Your task to perform on an android device: turn off location Image 0: 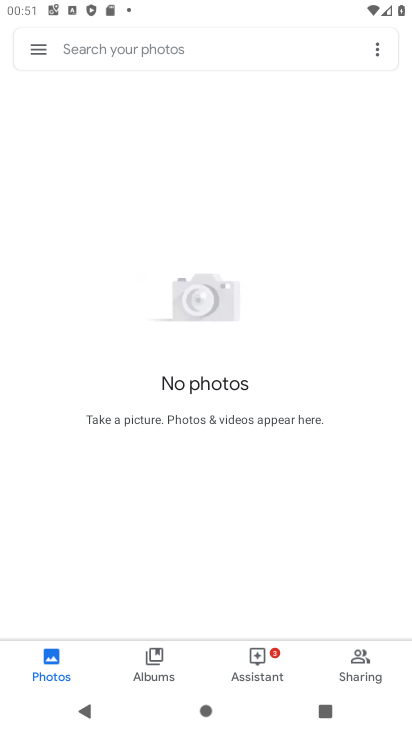
Step 0: press home button
Your task to perform on an android device: turn off location Image 1: 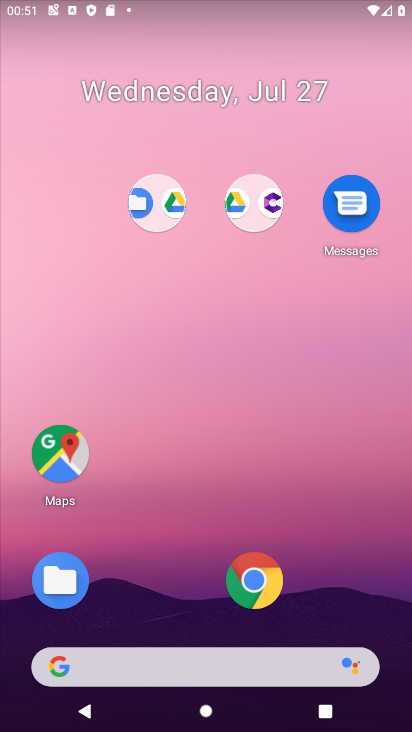
Step 1: drag from (130, 585) to (172, 69)
Your task to perform on an android device: turn off location Image 2: 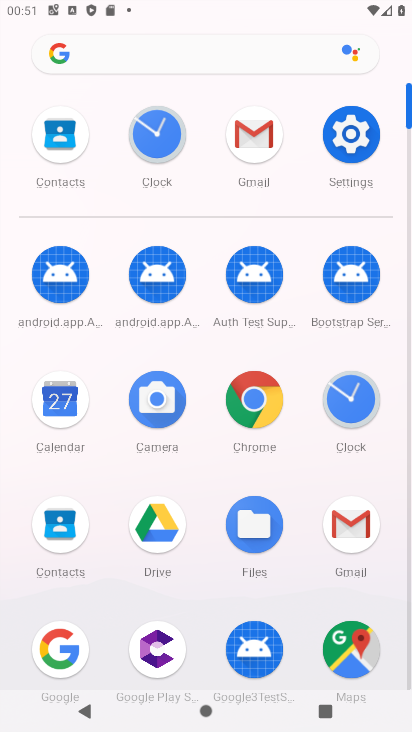
Step 2: click (344, 156)
Your task to perform on an android device: turn off location Image 3: 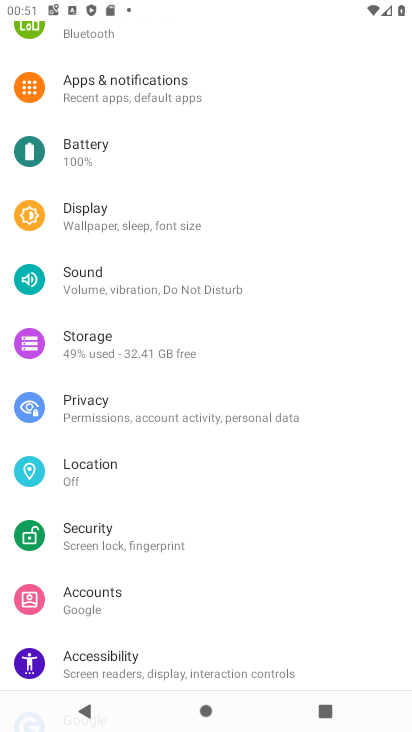
Step 3: click (131, 472)
Your task to perform on an android device: turn off location Image 4: 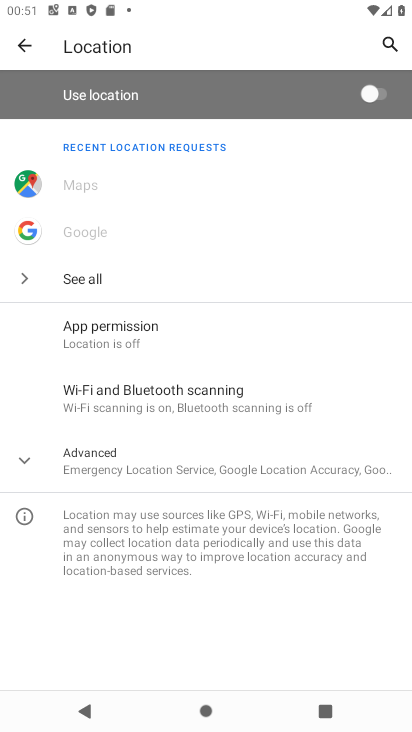
Step 4: task complete